Your task to perform on an android device: Is it going to rain this weekend? Image 0: 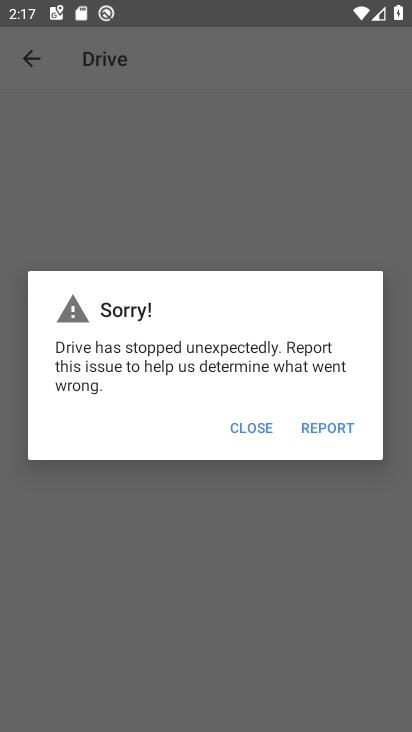
Step 0: press home button
Your task to perform on an android device: Is it going to rain this weekend? Image 1: 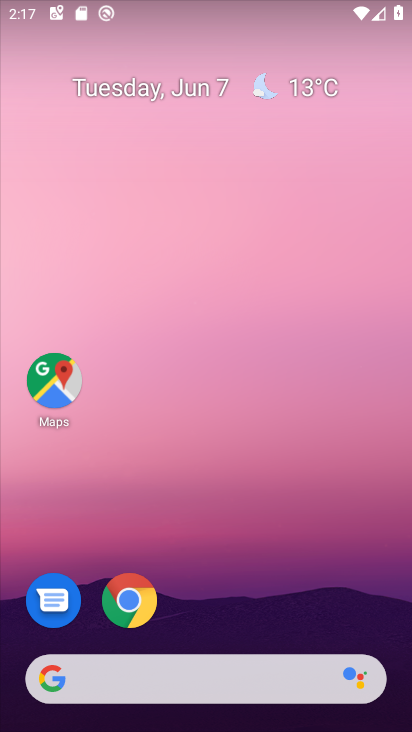
Step 1: click (275, 92)
Your task to perform on an android device: Is it going to rain this weekend? Image 2: 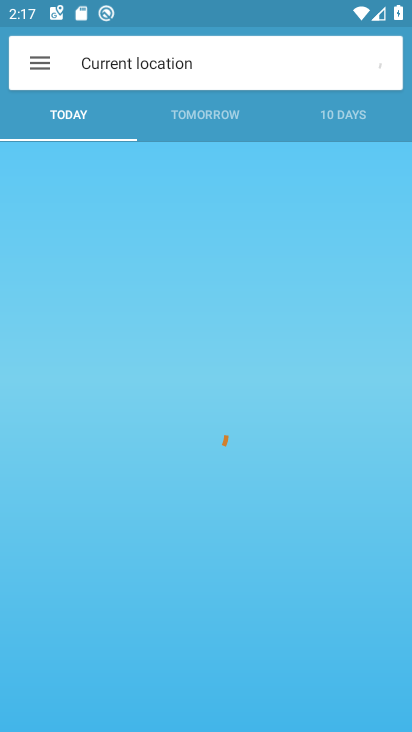
Step 2: click (335, 122)
Your task to perform on an android device: Is it going to rain this weekend? Image 3: 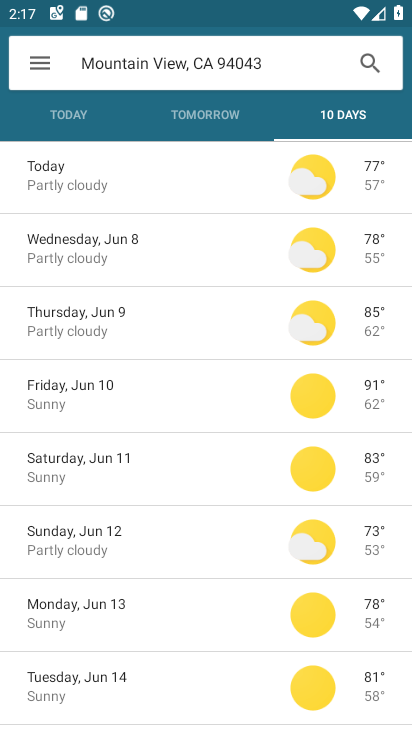
Step 3: task complete